Your task to perform on an android device: Set the phone to "Do not disturb". Image 0: 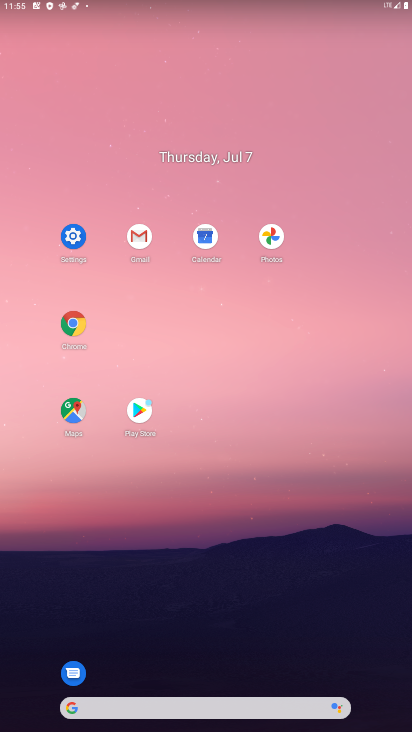
Step 0: click (80, 413)
Your task to perform on an android device: Set the phone to "Do not disturb". Image 1: 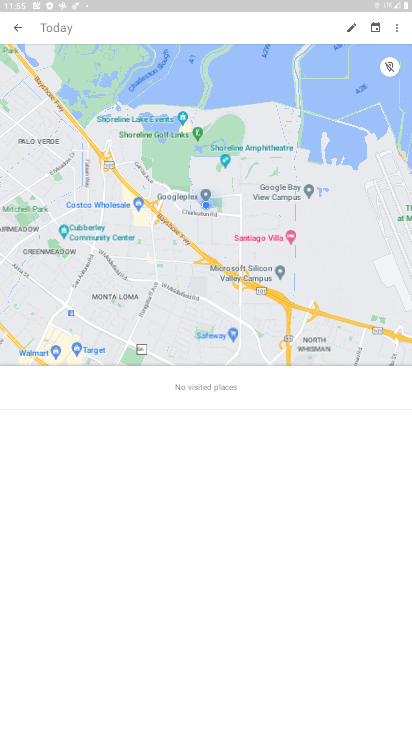
Step 1: click (216, 32)
Your task to perform on an android device: Set the phone to "Do not disturb". Image 2: 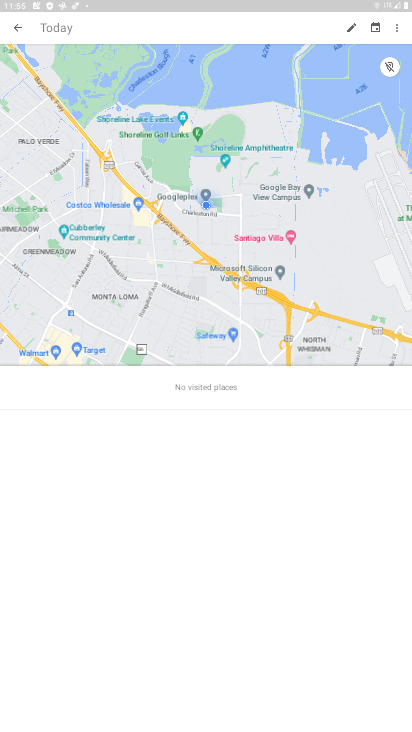
Step 2: click (97, 26)
Your task to perform on an android device: Set the phone to "Do not disturb". Image 3: 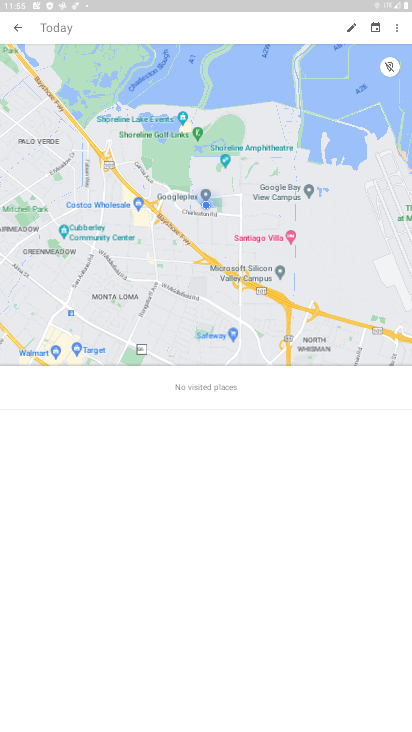
Step 3: click (214, 22)
Your task to perform on an android device: Set the phone to "Do not disturb". Image 4: 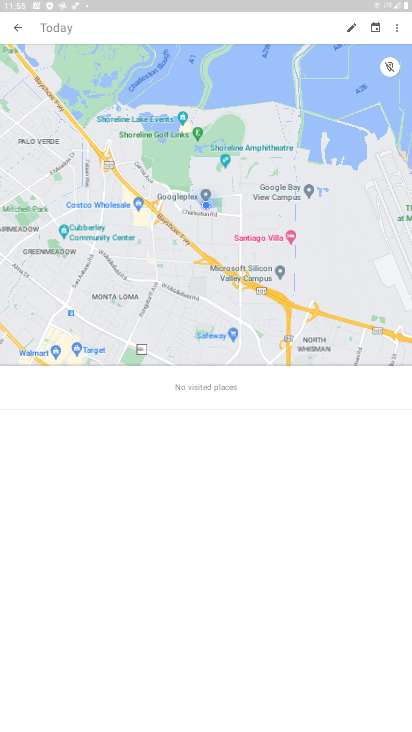
Step 4: press home button
Your task to perform on an android device: Set the phone to "Do not disturb". Image 5: 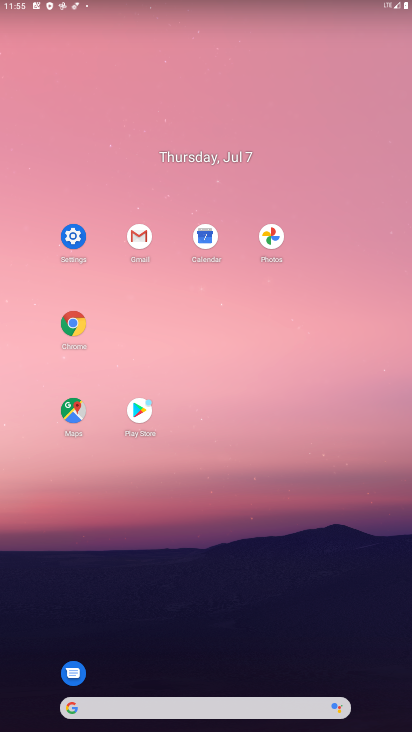
Step 5: click (79, 231)
Your task to perform on an android device: Set the phone to "Do not disturb". Image 6: 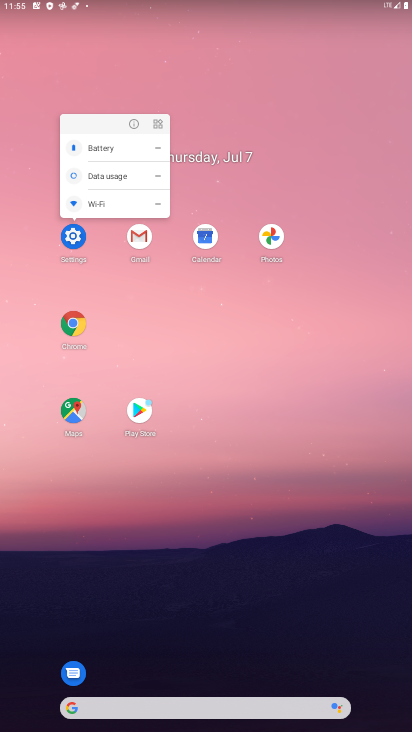
Step 6: click (79, 231)
Your task to perform on an android device: Set the phone to "Do not disturb". Image 7: 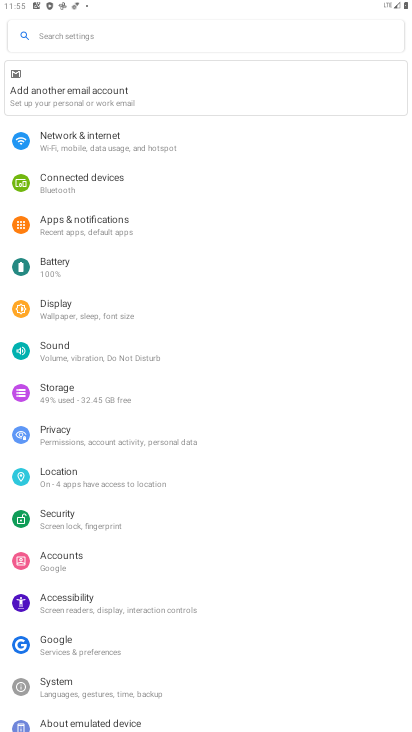
Step 7: click (144, 354)
Your task to perform on an android device: Set the phone to "Do not disturb". Image 8: 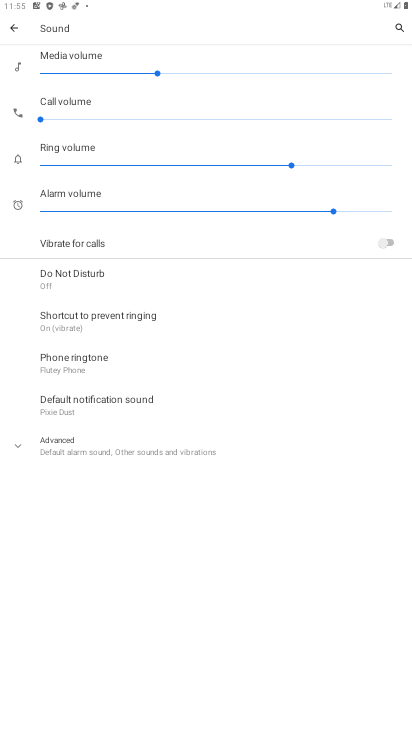
Step 8: click (73, 269)
Your task to perform on an android device: Set the phone to "Do not disturb". Image 9: 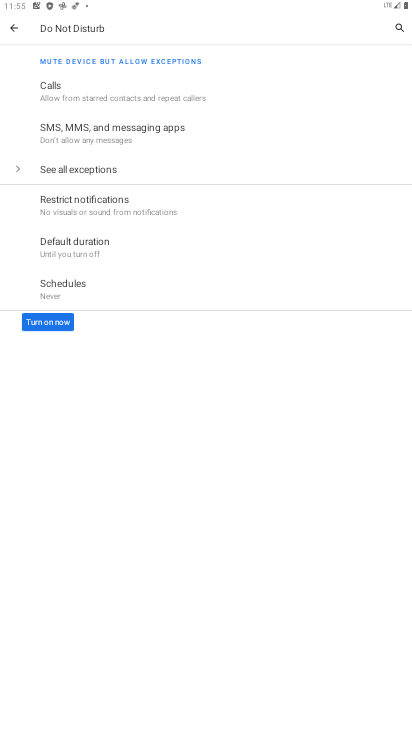
Step 9: click (51, 327)
Your task to perform on an android device: Set the phone to "Do not disturb". Image 10: 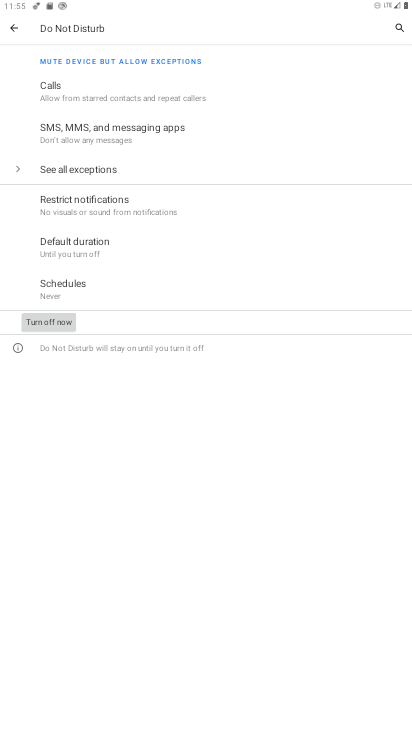
Step 10: task complete